Your task to perform on an android device: Open Amazon Image 0: 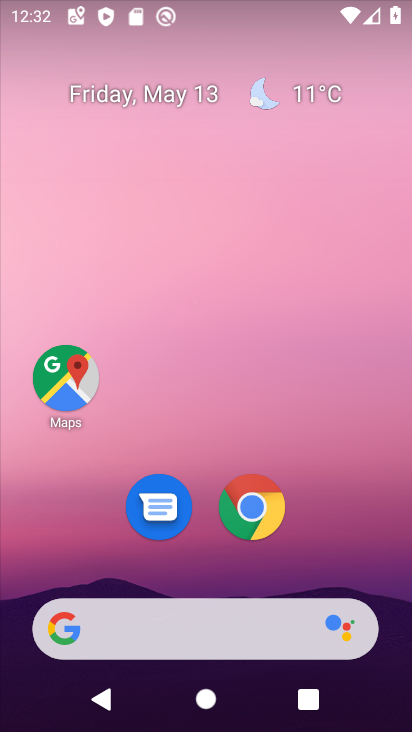
Step 0: click (255, 533)
Your task to perform on an android device: Open Amazon Image 1: 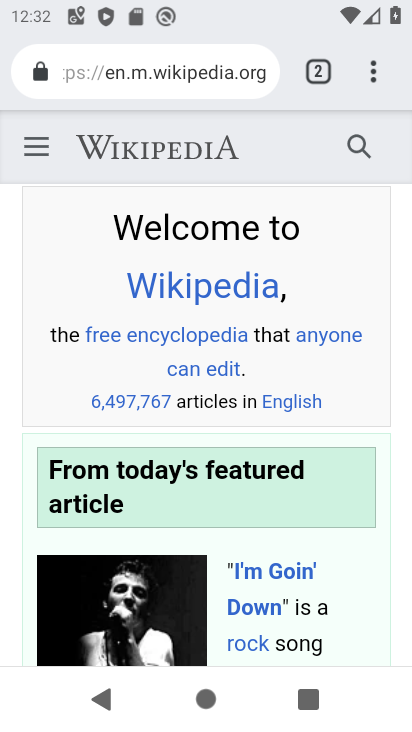
Step 1: click (311, 70)
Your task to perform on an android device: Open Amazon Image 2: 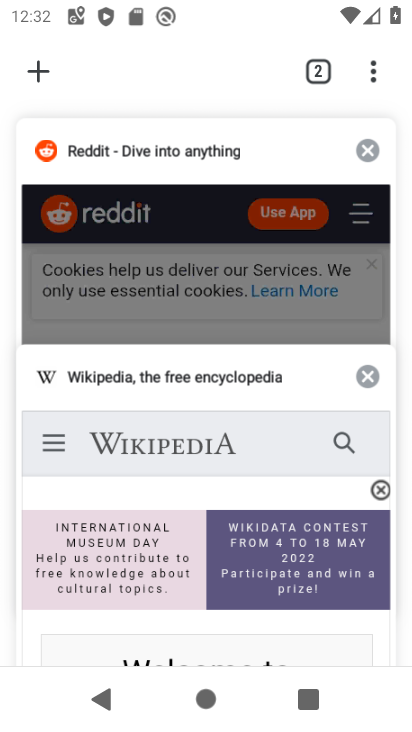
Step 2: click (46, 71)
Your task to perform on an android device: Open Amazon Image 3: 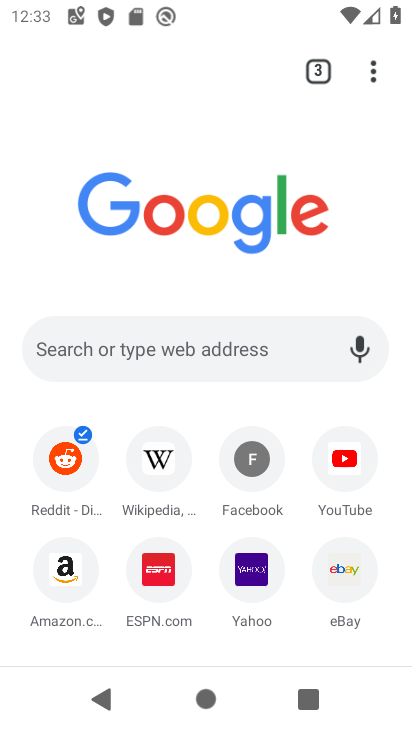
Step 3: click (64, 571)
Your task to perform on an android device: Open Amazon Image 4: 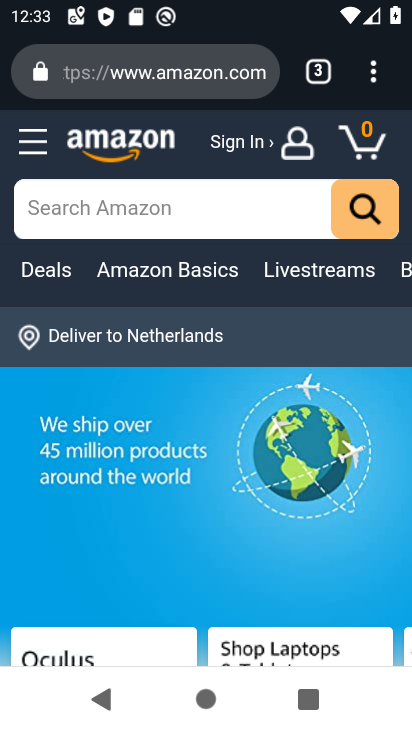
Step 4: task complete